Your task to perform on an android device: turn off priority inbox in the gmail app Image 0: 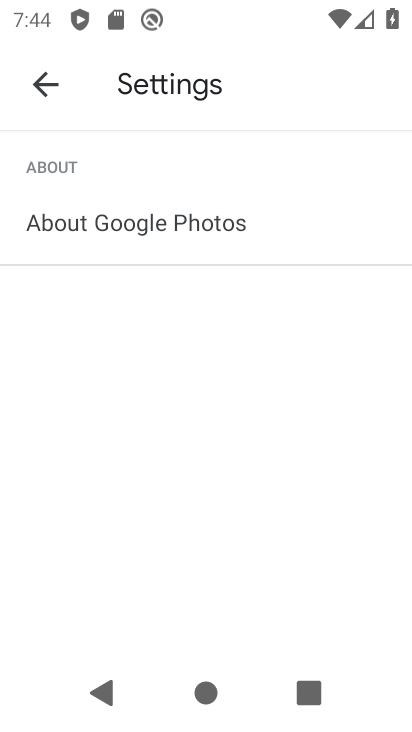
Step 0: press home button
Your task to perform on an android device: turn off priority inbox in the gmail app Image 1: 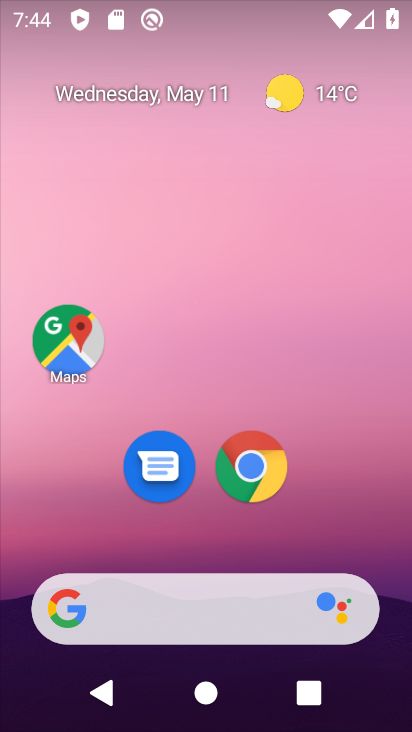
Step 1: drag from (295, 543) to (201, 21)
Your task to perform on an android device: turn off priority inbox in the gmail app Image 2: 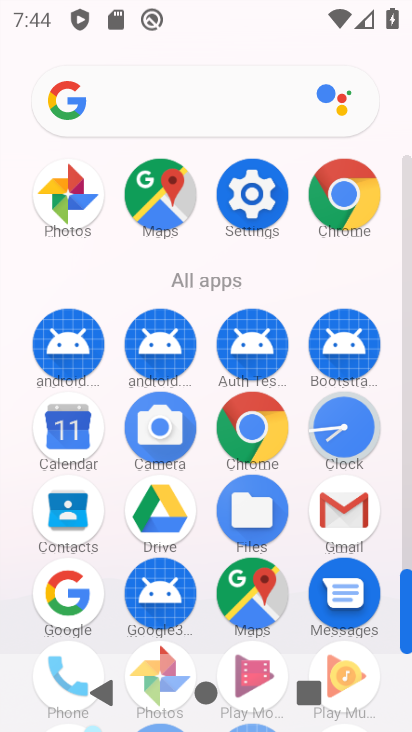
Step 2: click (351, 501)
Your task to perform on an android device: turn off priority inbox in the gmail app Image 3: 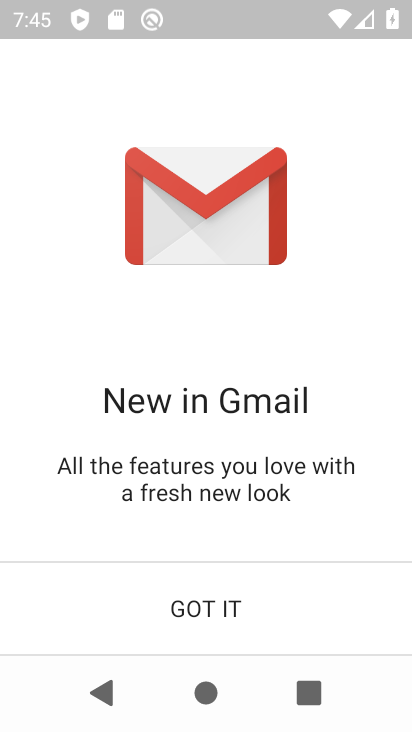
Step 3: click (216, 617)
Your task to perform on an android device: turn off priority inbox in the gmail app Image 4: 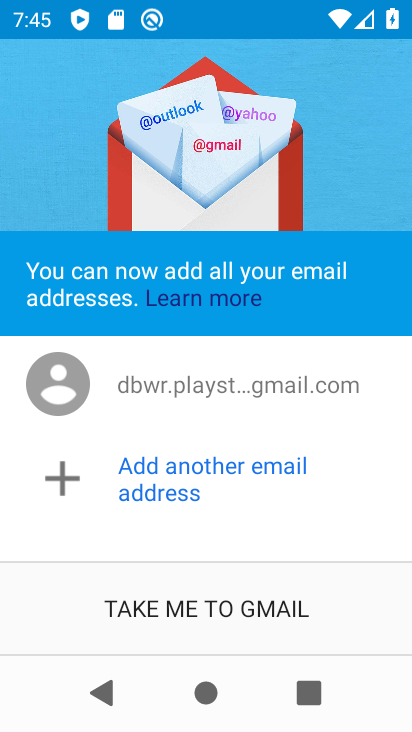
Step 4: click (229, 623)
Your task to perform on an android device: turn off priority inbox in the gmail app Image 5: 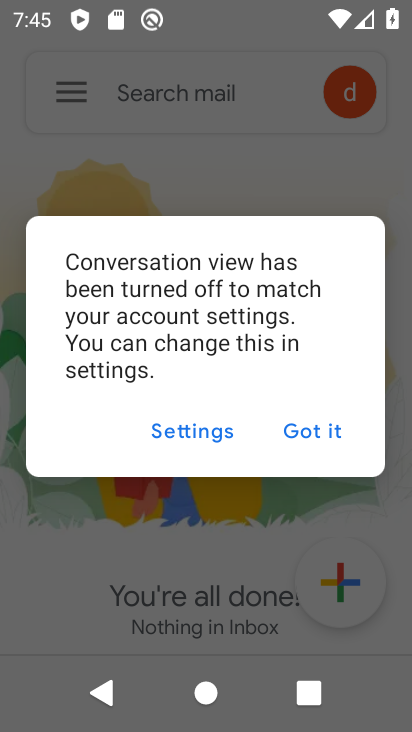
Step 5: click (276, 438)
Your task to perform on an android device: turn off priority inbox in the gmail app Image 6: 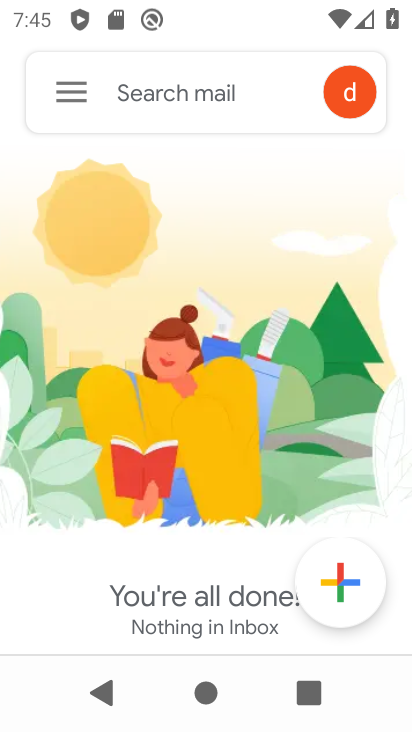
Step 6: click (54, 100)
Your task to perform on an android device: turn off priority inbox in the gmail app Image 7: 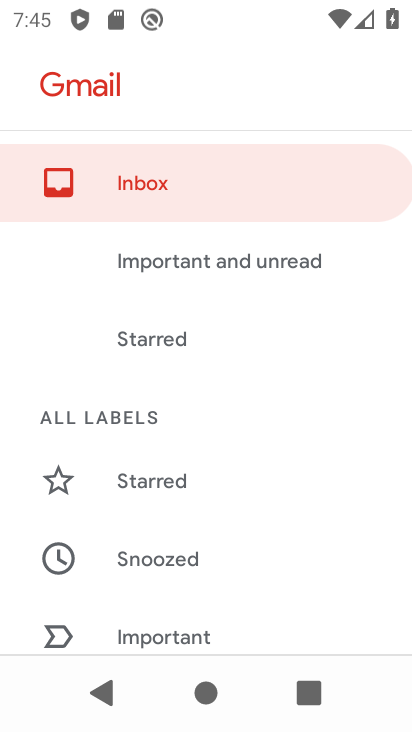
Step 7: drag from (207, 557) to (240, 201)
Your task to perform on an android device: turn off priority inbox in the gmail app Image 8: 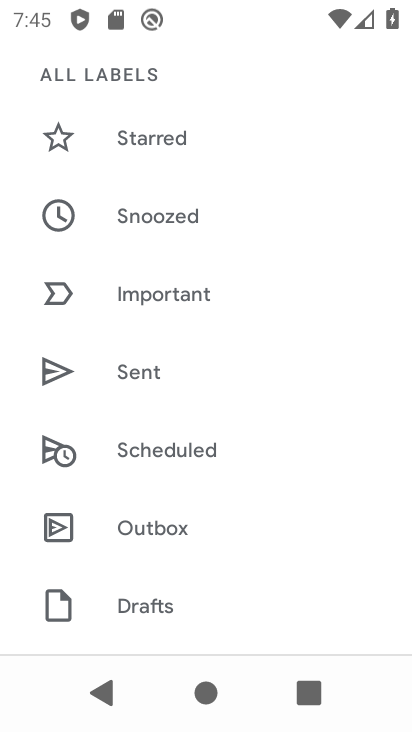
Step 8: drag from (192, 557) to (198, 187)
Your task to perform on an android device: turn off priority inbox in the gmail app Image 9: 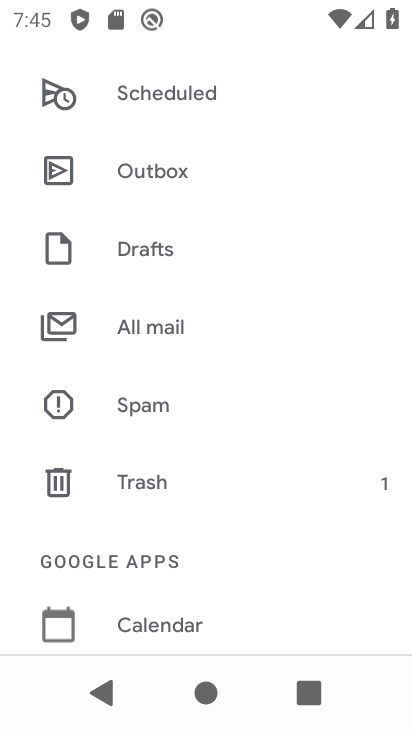
Step 9: drag from (194, 612) to (252, 213)
Your task to perform on an android device: turn off priority inbox in the gmail app Image 10: 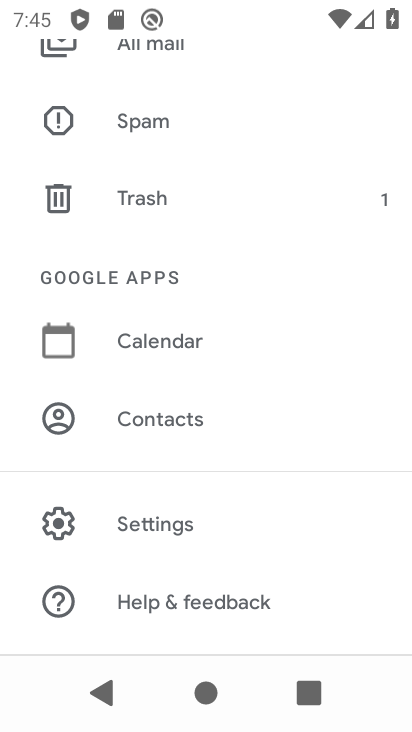
Step 10: click (143, 531)
Your task to perform on an android device: turn off priority inbox in the gmail app Image 11: 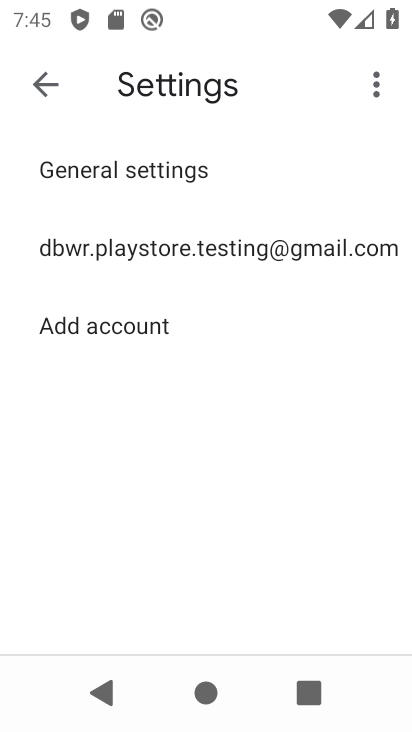
Step 11: click (222, 240)
Your task to perform on an android device: turn off priority inbox in the gmail app Image 12: 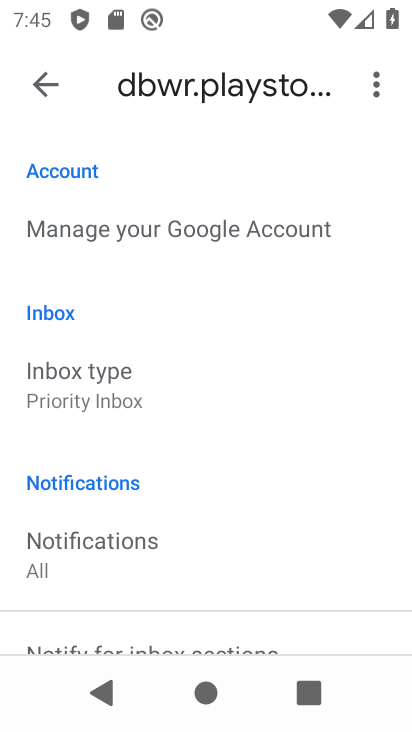
Step 12: drag from (170, 554) to (168, 496)
Your task to perform on an android device: turn off priority inbox in the gmail app Image 13: 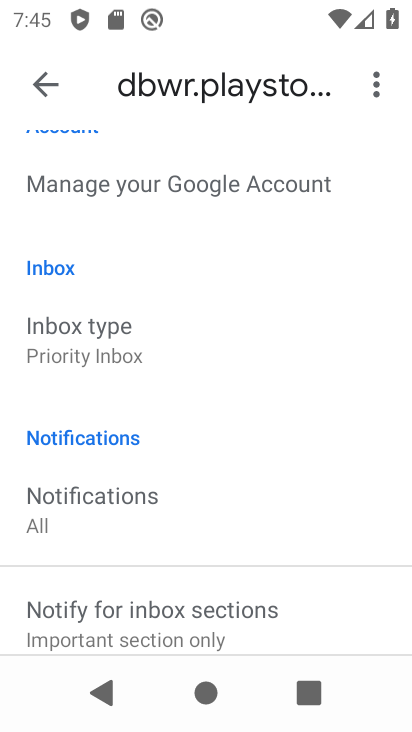
Step 13: click (142, 341)
Your task to perform on an android device: turn off priority inbox in the gmail app Image 14: 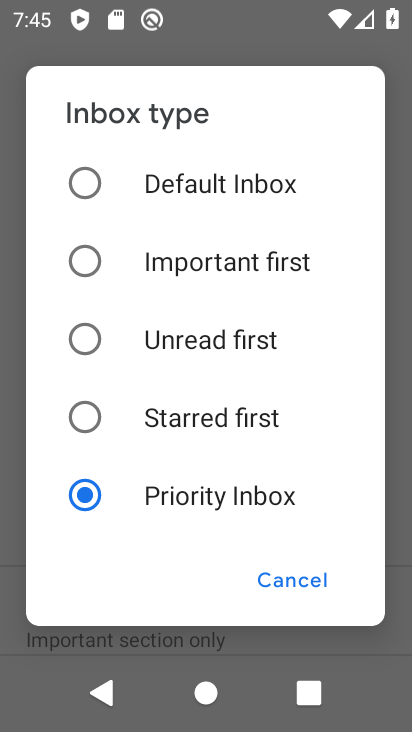
Step 14: click (210, 169)
Your task to perform on an android device: turn off priority inbox in the gmail app Image 15: 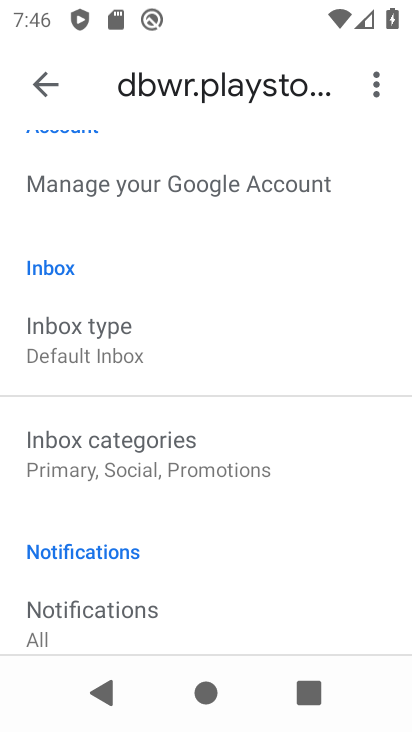
Step 15: task complete